Your task to perform on an android device: set an alarm Image 0: 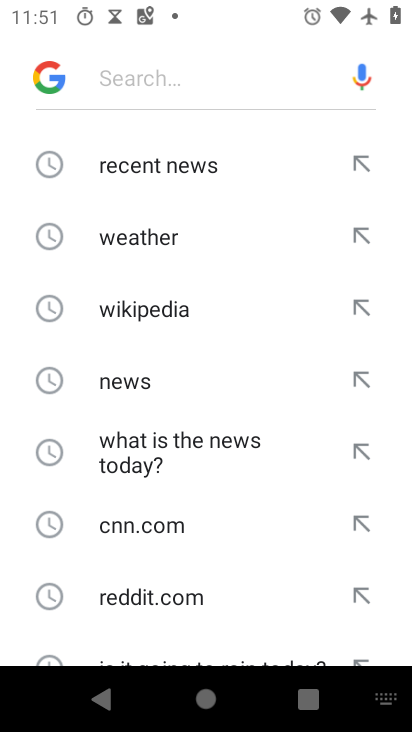
Step 0: press back button
Your task to perform on an android device: set an alarm Image 1: 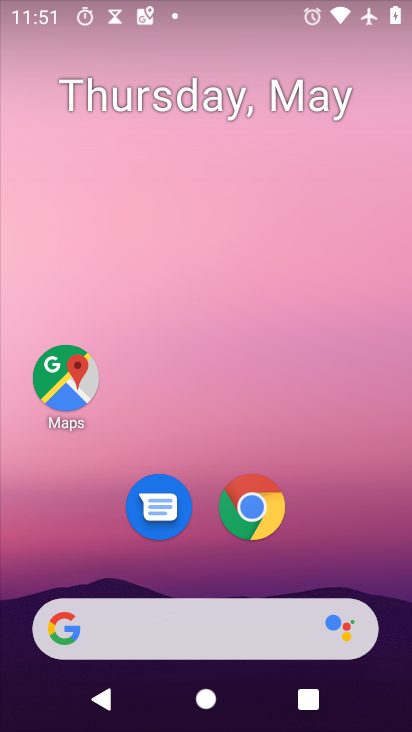
Step 1: drag from (345, 469) to (287, 3)
Your task to perform on an android device: set an alarm Image 2: 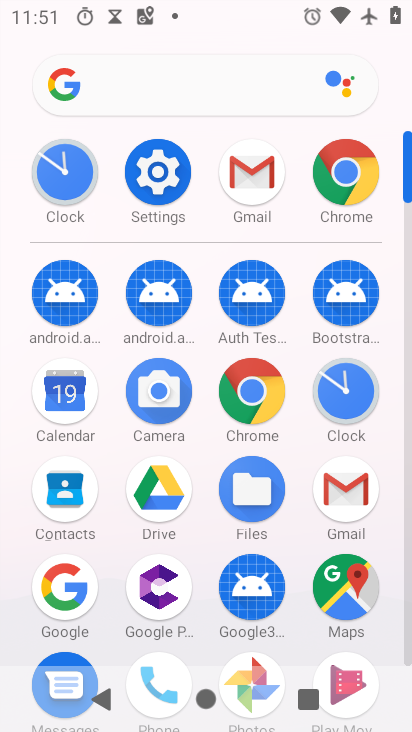
Step 2: drag from (0, 564) to (21, 240)
Your task to perform on an android device: set an alarm Image 3: 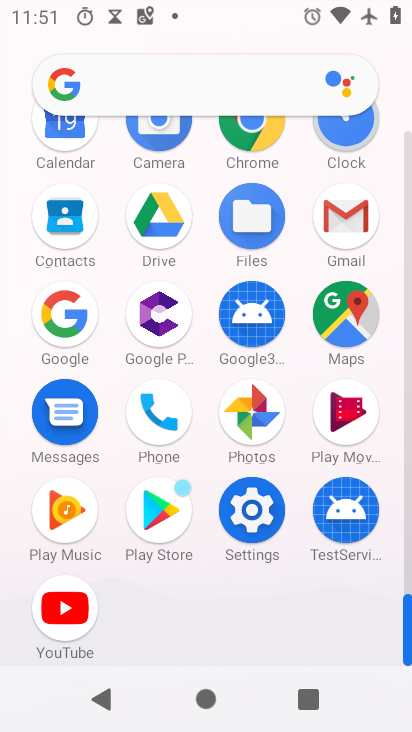
Step 3: click (344, 124)
Your task to perform on an android device: set an alarm Image 4: 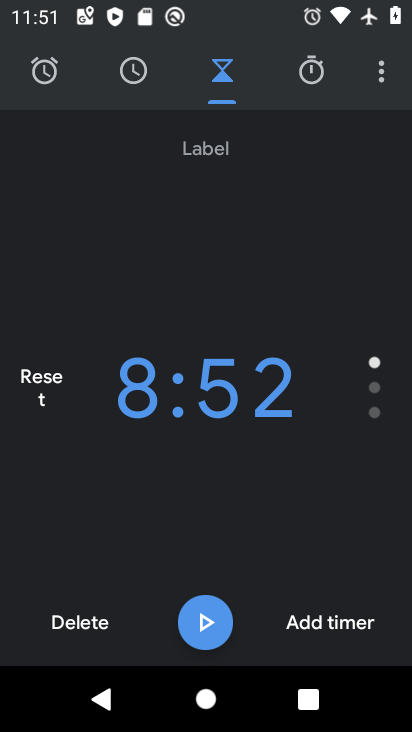
Step 4: click (35, 68)
Your task to perform on an android device: set an alarm Image 5: 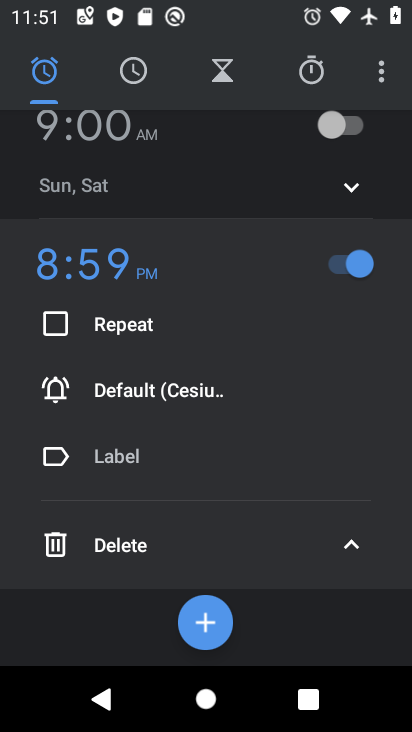
Step 5: click (210, 613)
Your task to perform on an android device: set an alarm Image 6: 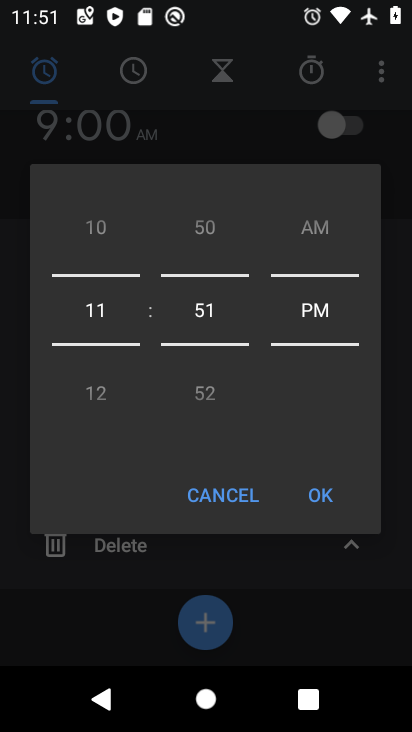
Step 6: drag from (116, 248) to (109, 444)
Your task to perform on an android device: set an alarm Image 7: 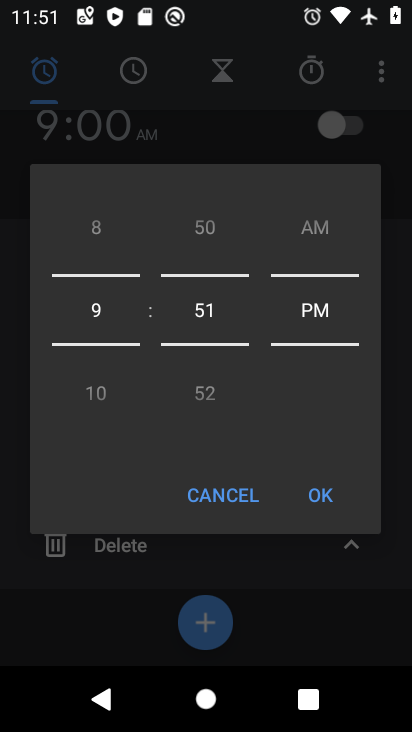
Step 7: drag from (226, 236) to (226, 405)
Your task to perform on an android device: set an alarm Image 8: 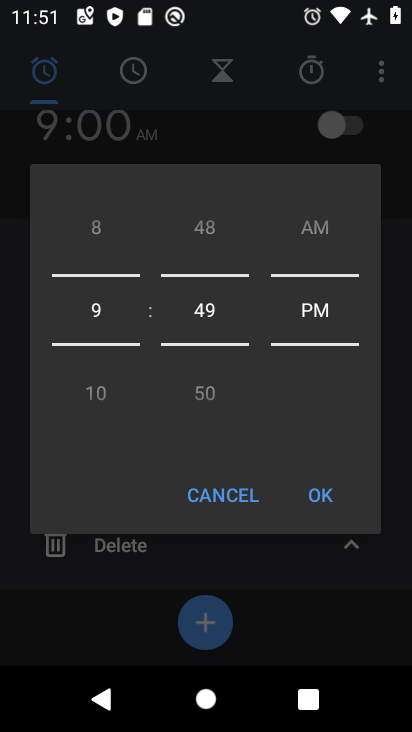
Step 8: click (315, 487)
Your task to perform on an android device: set an alarm Image 9: 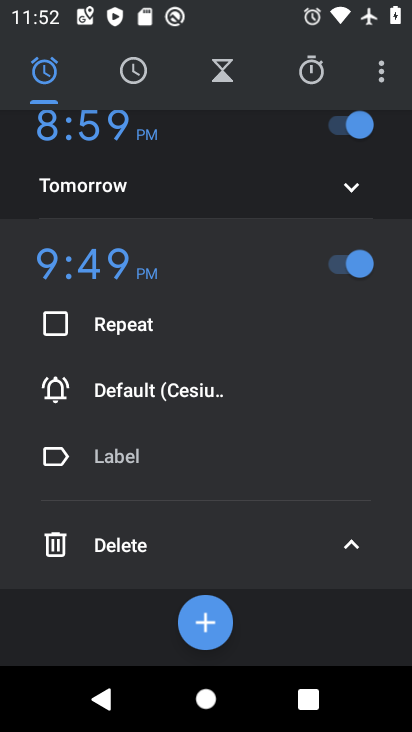
Step 9: task complete